Your task to perform on an android device: turn off notifications settings in the gmail app Image 0: 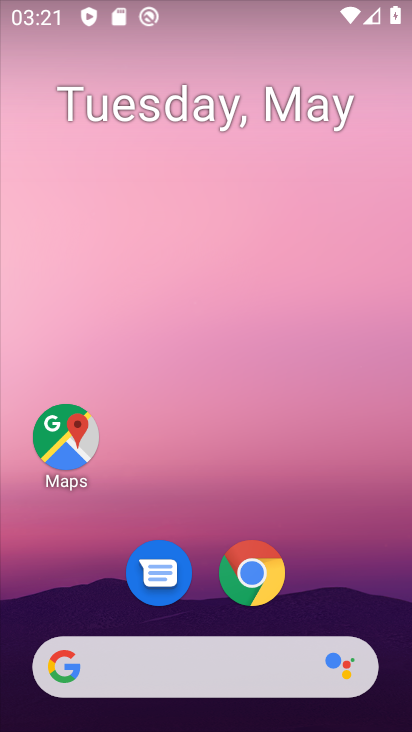
Step 0: drag from (196, 605) to (211, 79)
Your task to perform on an android device: turn off notifications settings in the gmail app Image 1: 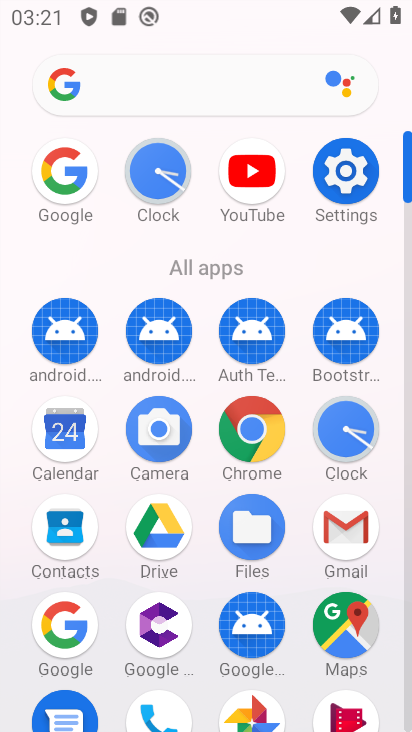
Step 1: click (336, 521)
Your task to perform on an android device: turn off notifications settings in the gmail app Image 2: 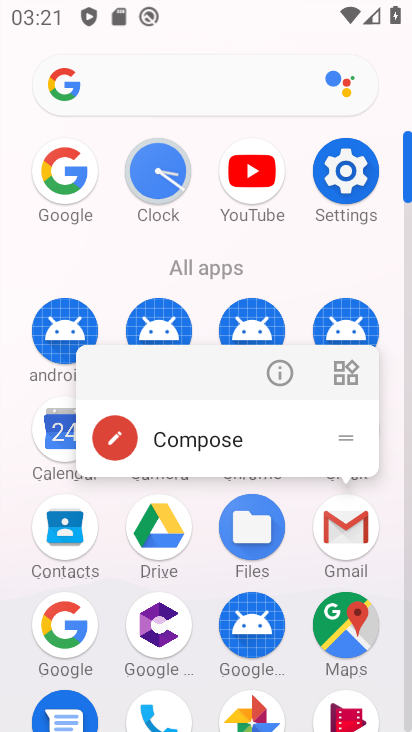
Step 2: click (289, 370)
Your task to perform on an android device: turn off notifications settings in the gmail app Image 3: 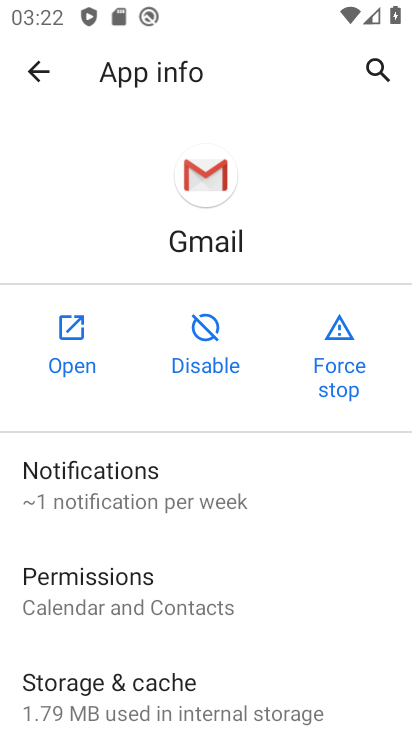
Step 3: click (150, 481)
Your task to perform on an android device: turn off notifications settings in the gmail app Image 4: 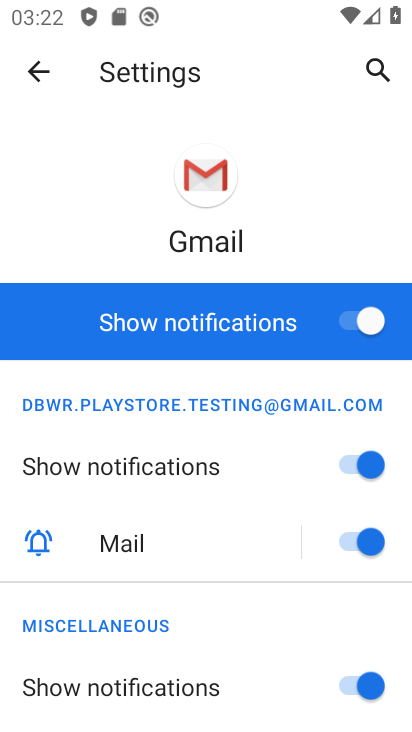
Step 4: click (362, 319)
Your task to perform on an android device: turn off notifications settings in the gmail app Image 5: 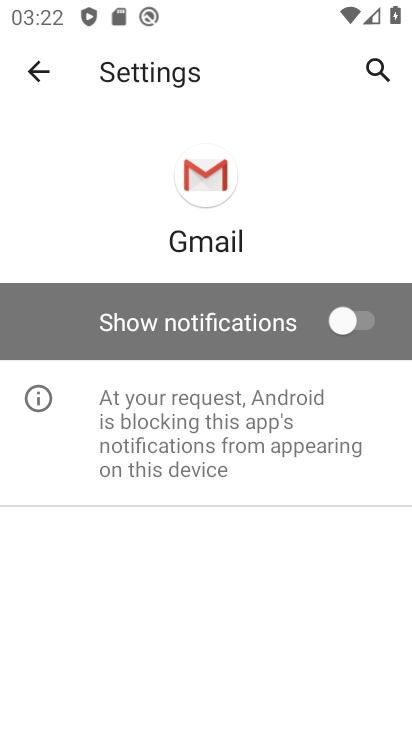
Step 5: task complete